Your task to perform on an android device: turn on notifications settings in the gmail app Image 0: 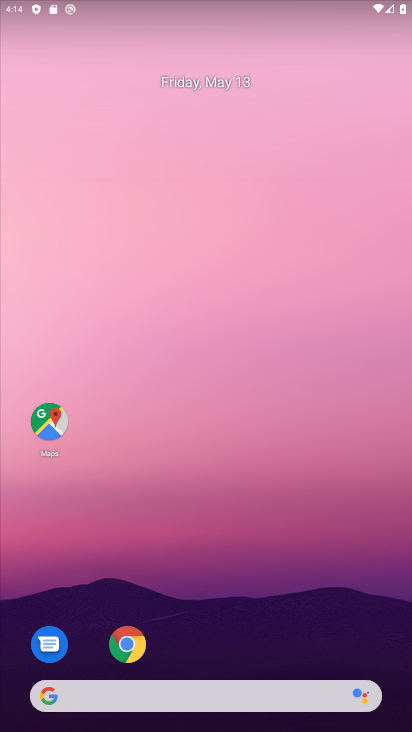
Step 0: drag from (195, 633) to (304, 141)
Your task to perform on an android device: turn on notifications settings in the gmail app Image 1: 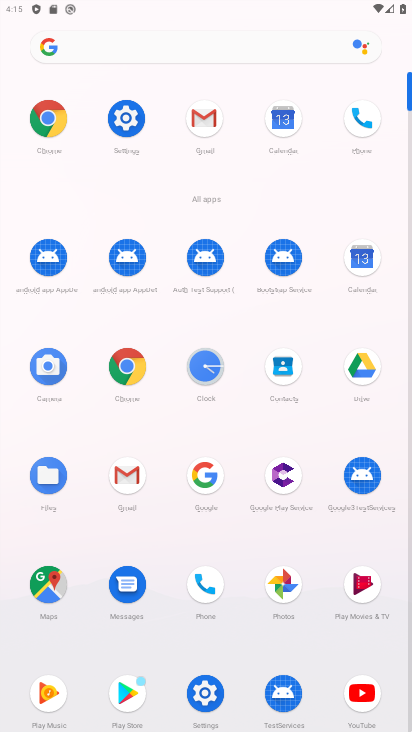
Step 1: click (125, 479)
Your task to perform on an android device: turn on notifications settings in the gmail app Image 2: 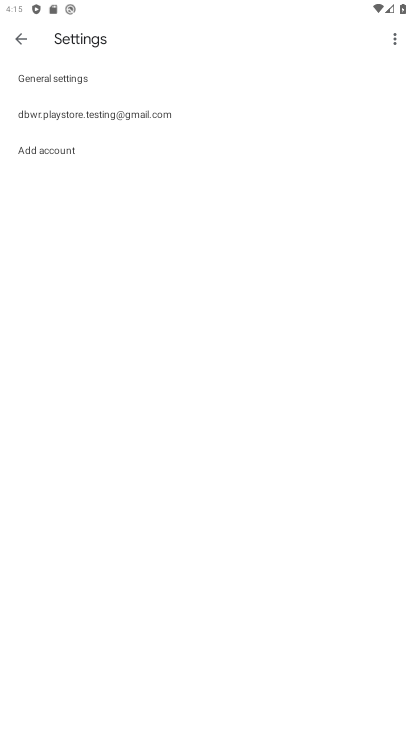
Step 2: click (102, 121)
Your task to perform on an android device: turn on notifications settings in the gmail app Image 3: 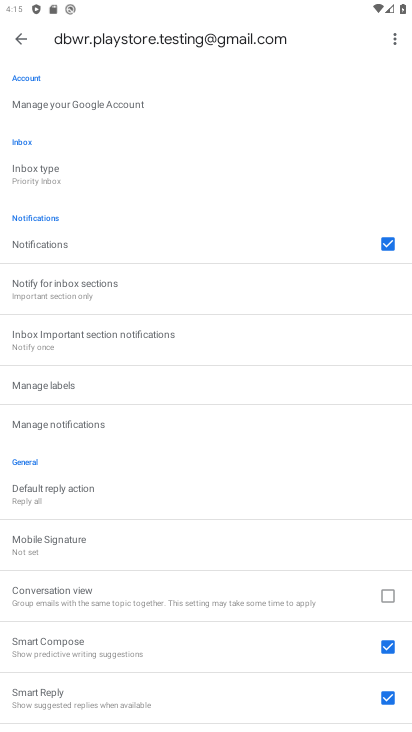
Step 3: task complete